Your task to perform on an android device: turn on wifi Image 0: 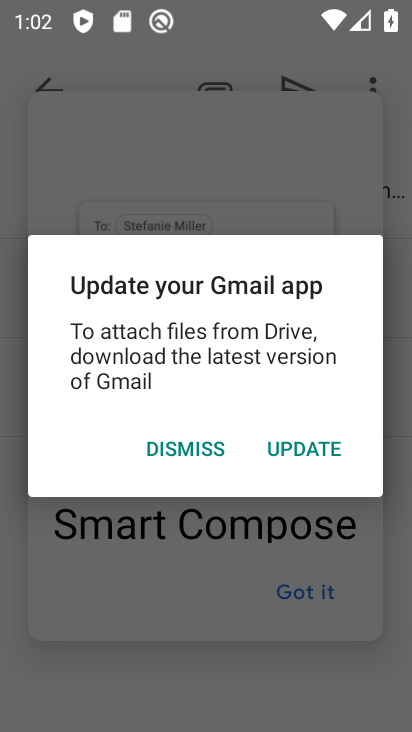
Step 0: click (307, 660)
Your task to perform on an android device: turn on wifi Image 1: 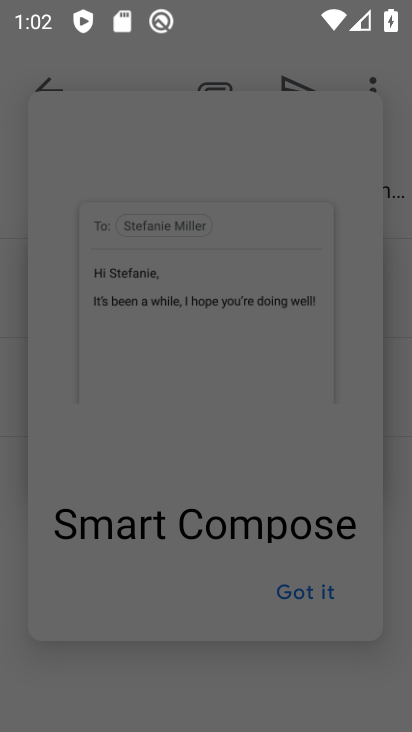
Step 1: press home button
Your task to perform on an android device: turn on wifi Image 2: 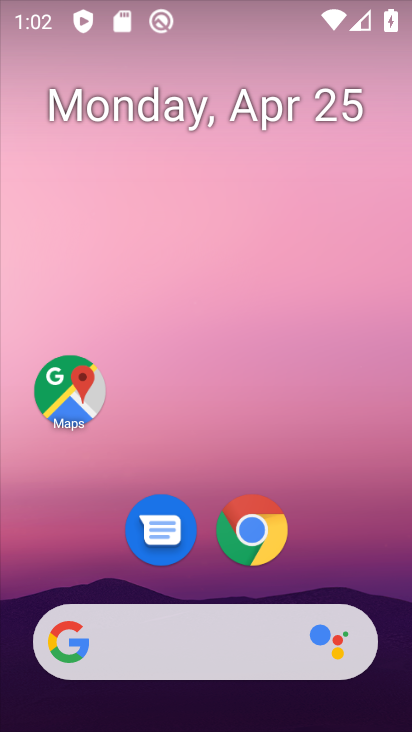
Step 2: drag from (378, 561) to (360, 152)
Your task to perform on an android device: turn on wifi Image 3: 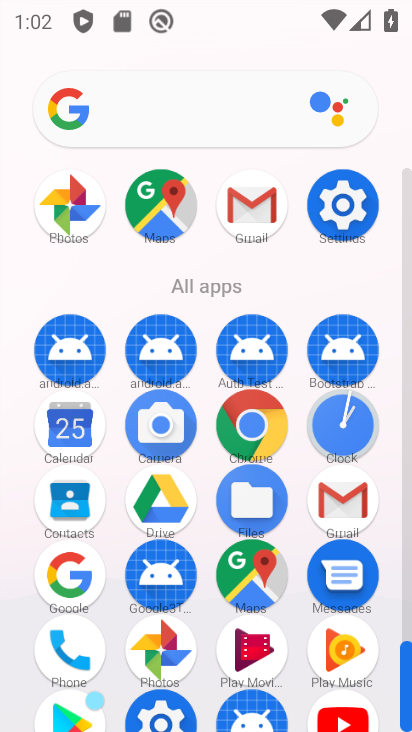
Step 3: click (350, 225)
Your task to perform on an android device: turn on wifi Image 4: 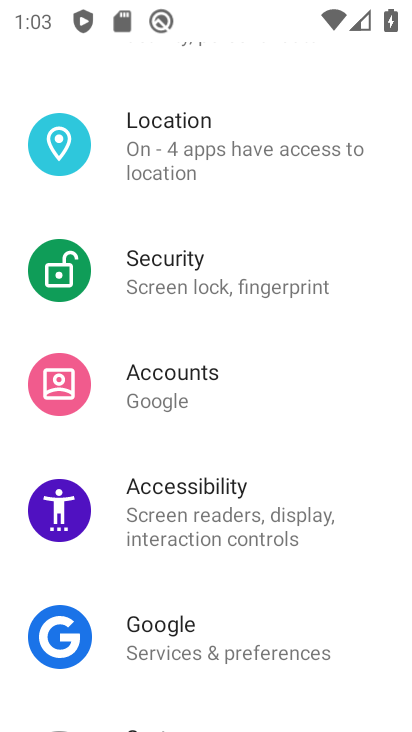
Step 4: drag from (319, 252) to (319, 512)
Your task to perform on an android device: turn on wifi Image 5: 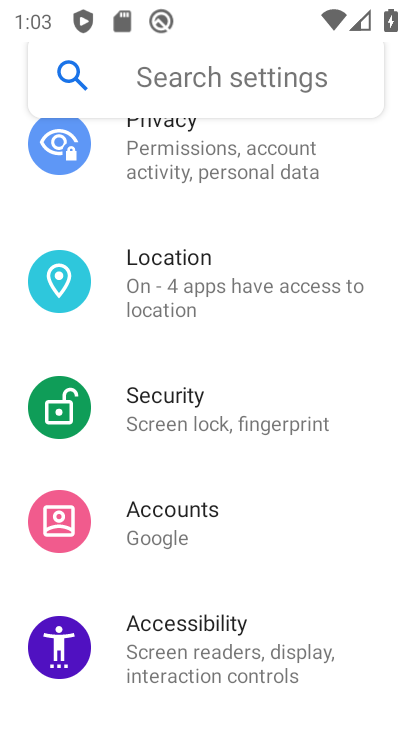
Step 5: drag from (295, 219) to (263, 495)
Your task to perform on an android device: turn on wifi Image 6: 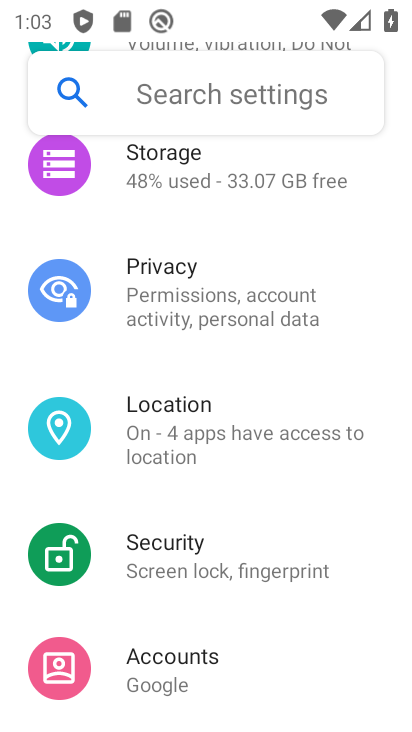
Step 6: drag from (285, 284) to (298, 617)
Your task to perform on an android device: turn on wifi Image 7: 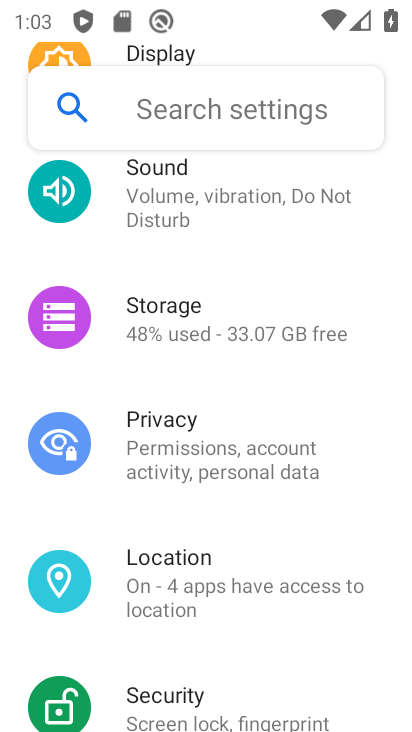
Step 7: drag from (292, 320) to (298, 629)
Your task to perform on an android device: turn on wifi Image 8: 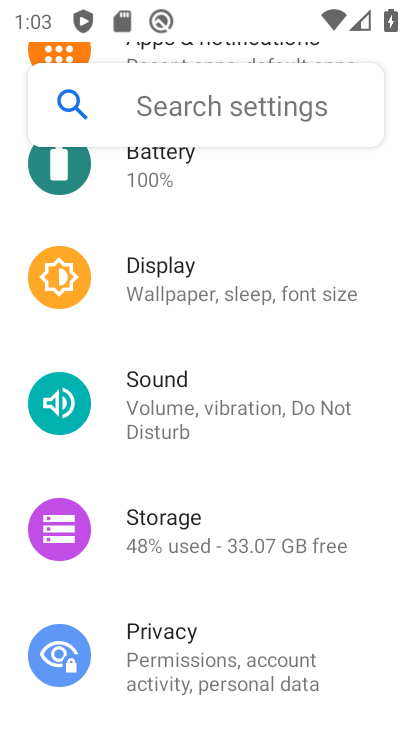
Step 8: drag from (301, 247) to (288, 671)
Your task to perform on an android device: turn on wifi Image 9: 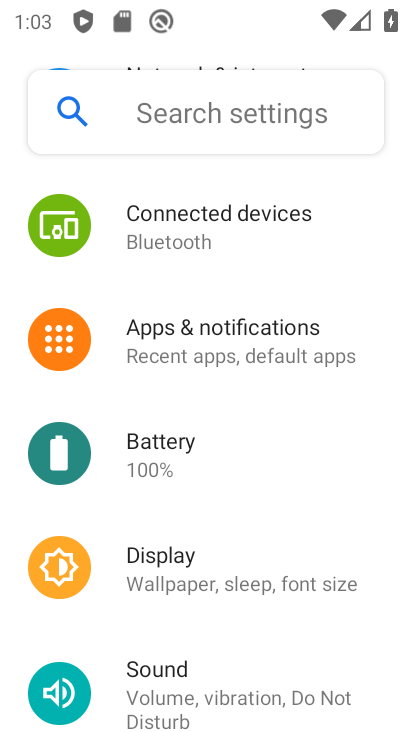
Step 9: drag from (254, 189) to (274, 635)
Your task to perform on an android device: turn on wifi Image 10: 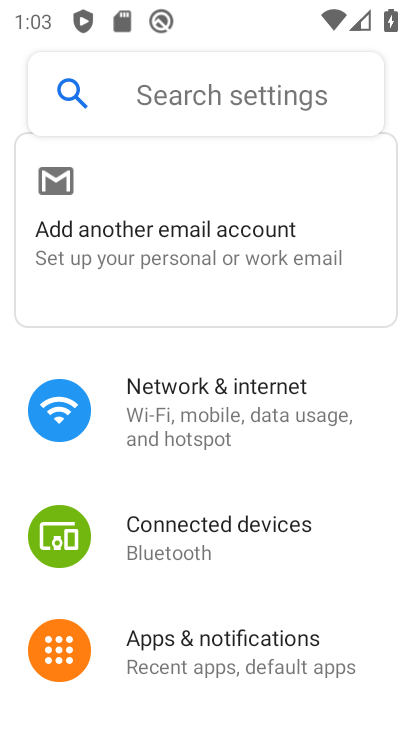
Step 10: click (251, 415)
Your task to perform on an android device: turn on wifi Image 11: 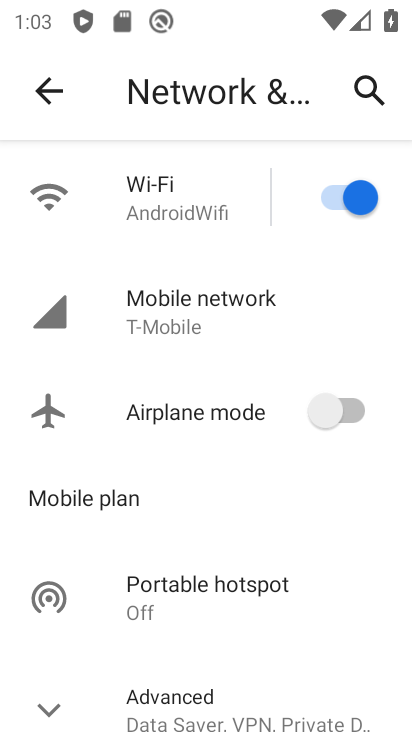
Step 11: task complete